Your task to perform on an android device: make emails show in primary in the gmail app Image 0: 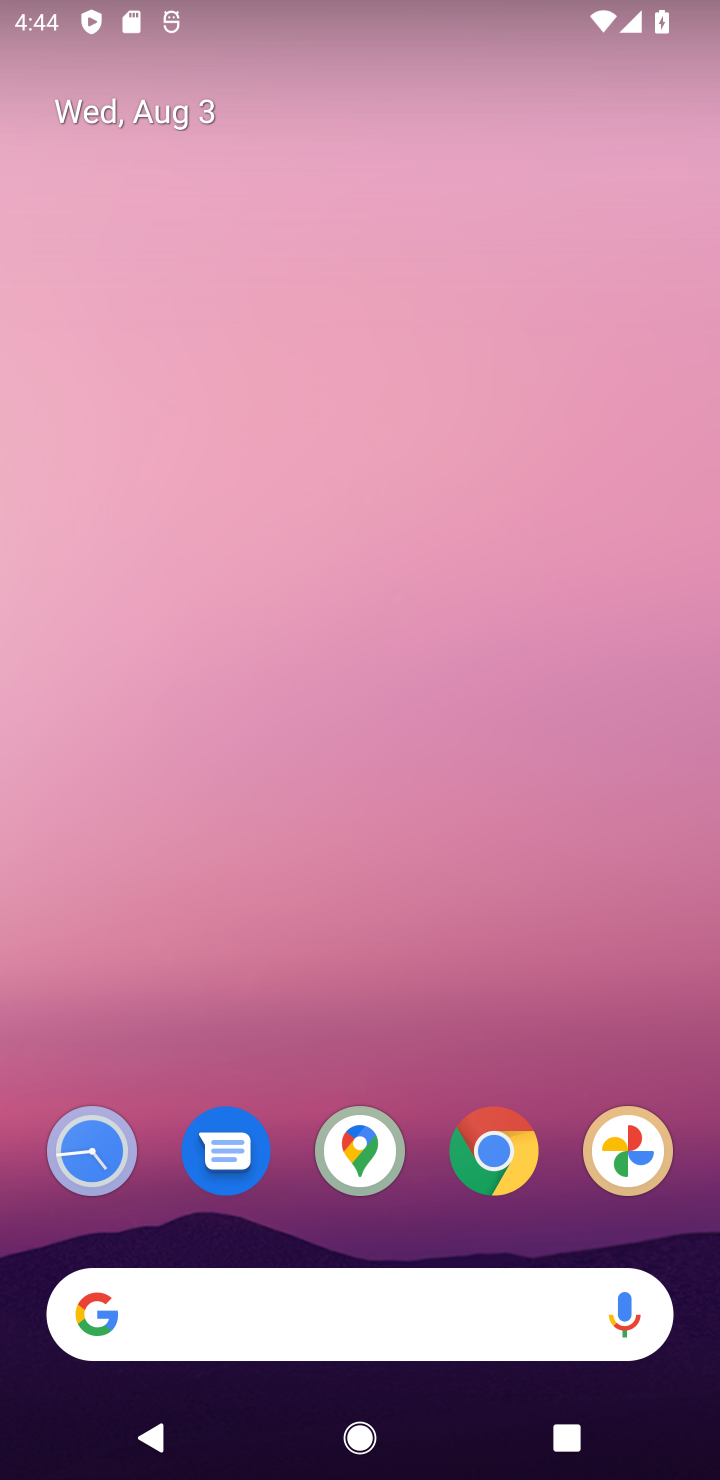
Step 0: press back button
Your task to perform on an android device: make emails show in primary in the gmail app Image 1: 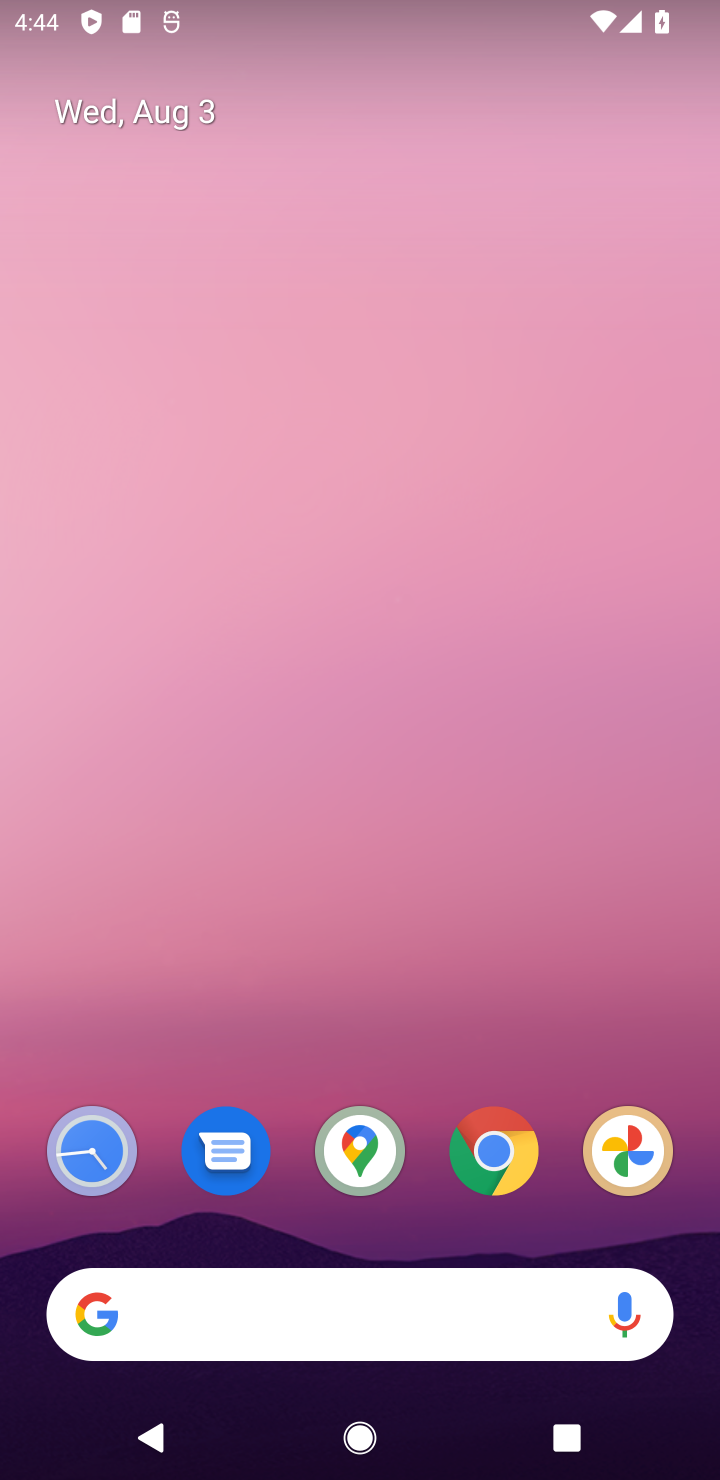
Step 1: drag from (359, 1062) to (272, 495)
Your task to perform on an android device: make emails show in primary in the gmail app Image 2: 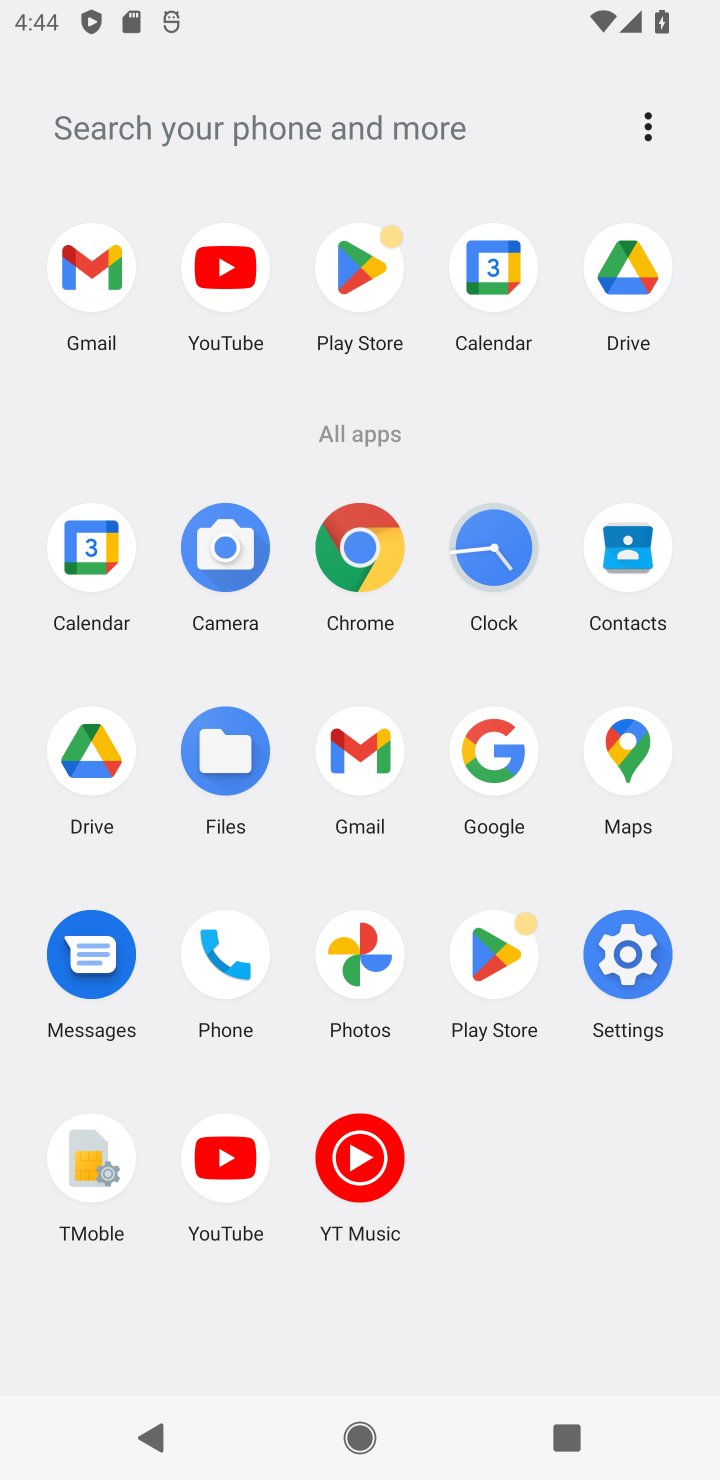
Step 2: click (330, 742)
Your task to perform on an android device: make emails show in primary in the gmail app Image 3: 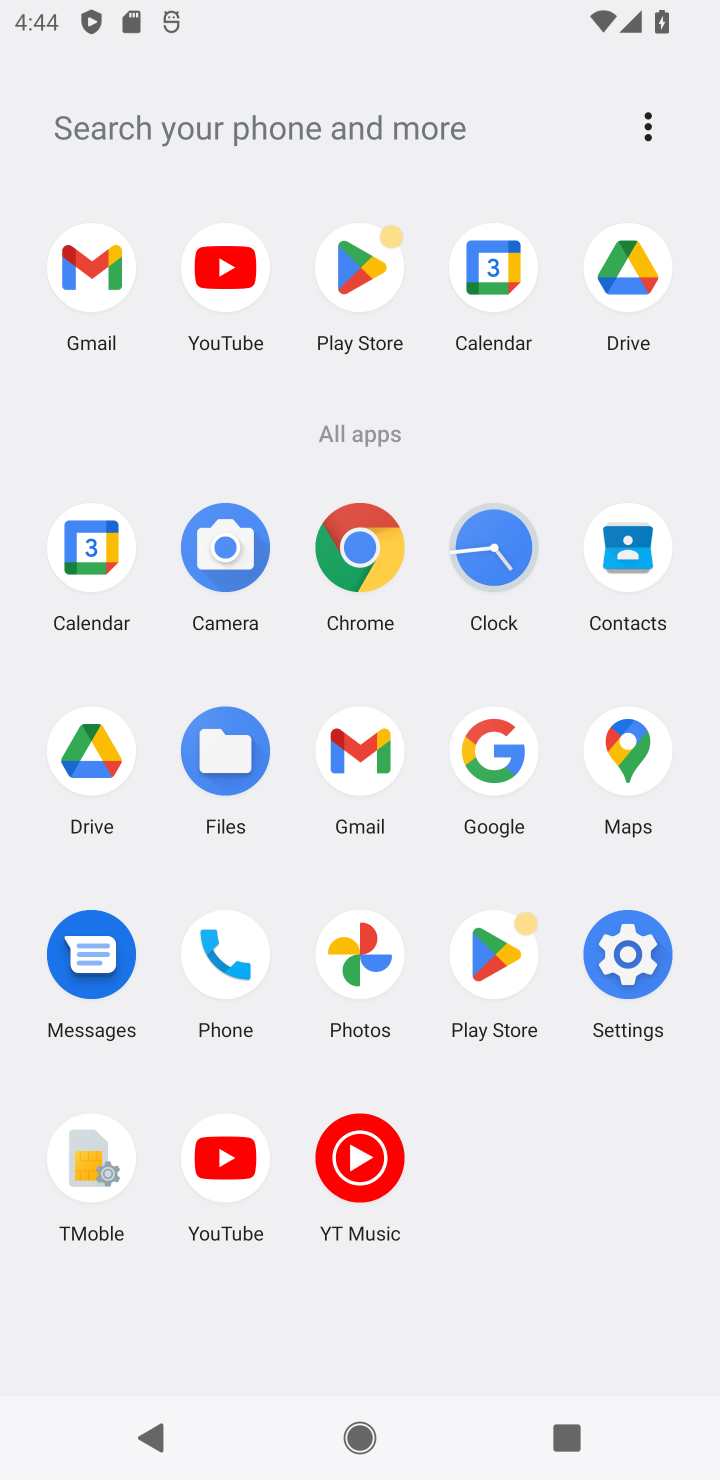
Step 3: click (334, 742)
Your task to perform on an android device: make emails show in primary in the gmail app Image 4: 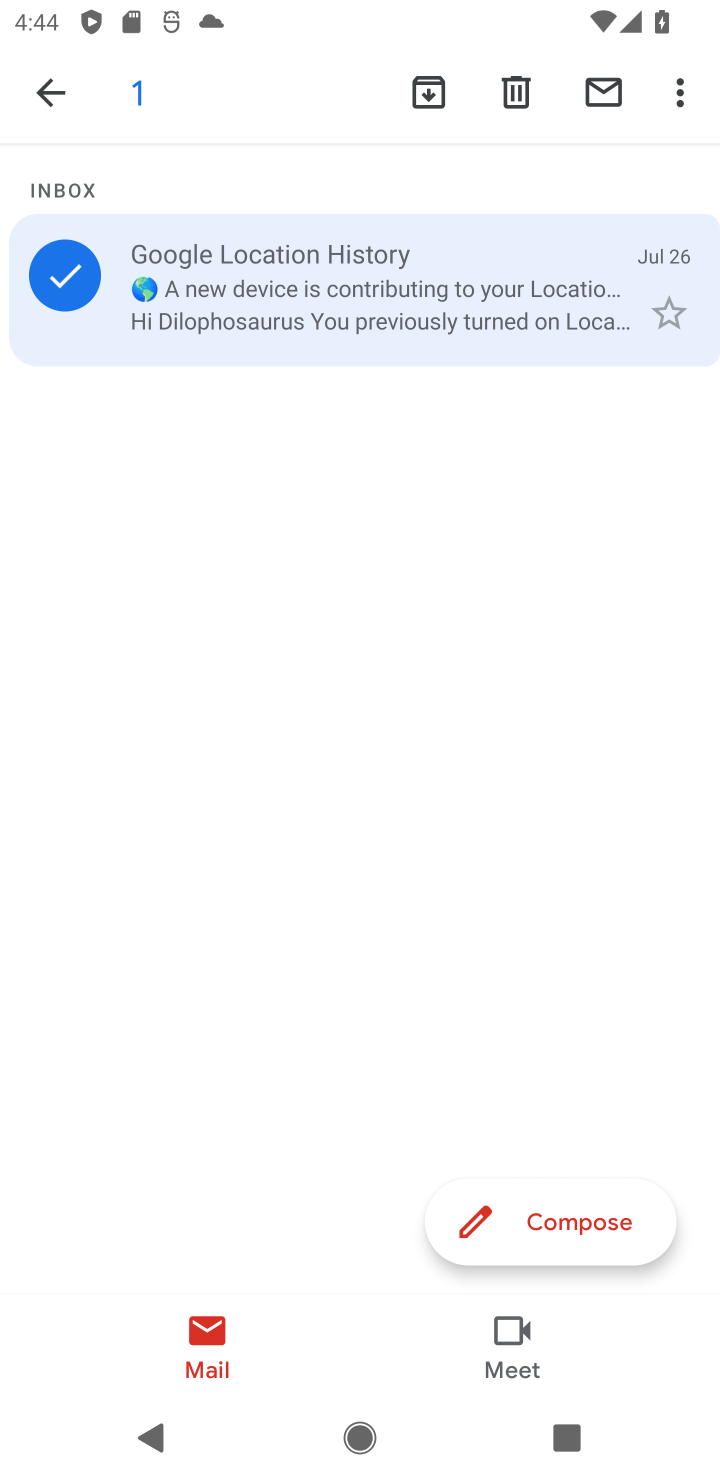
Step 4: click (40, 82)
Your task to perform on an android device: make emails show in primary in the gmail app Image 5: 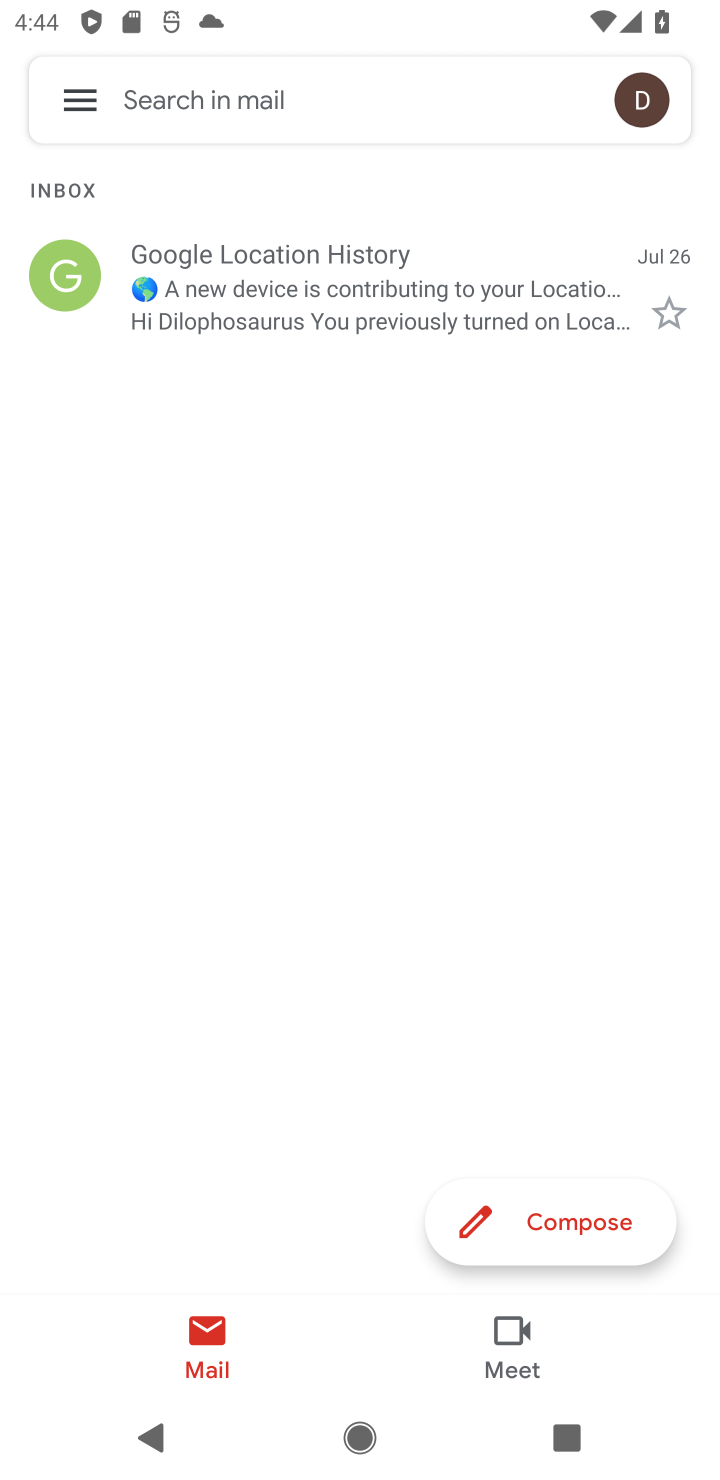
Step 5: click (63, 90)
Your task to perform on an android device: make emails show in primary in the gmail app Image 6: 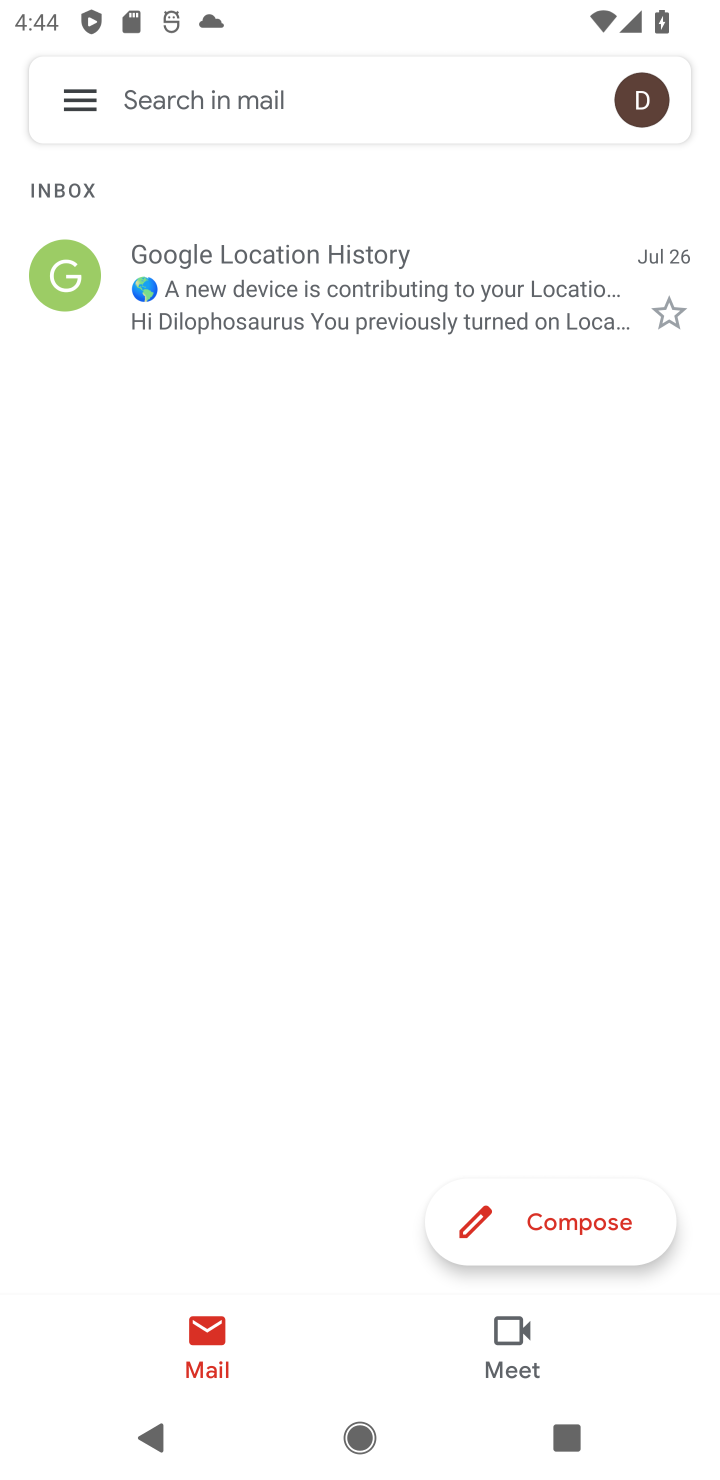
Step 6: click (70, 95)
Your task to perform on an android device: make emails show in primary in the gmail app Image 7: 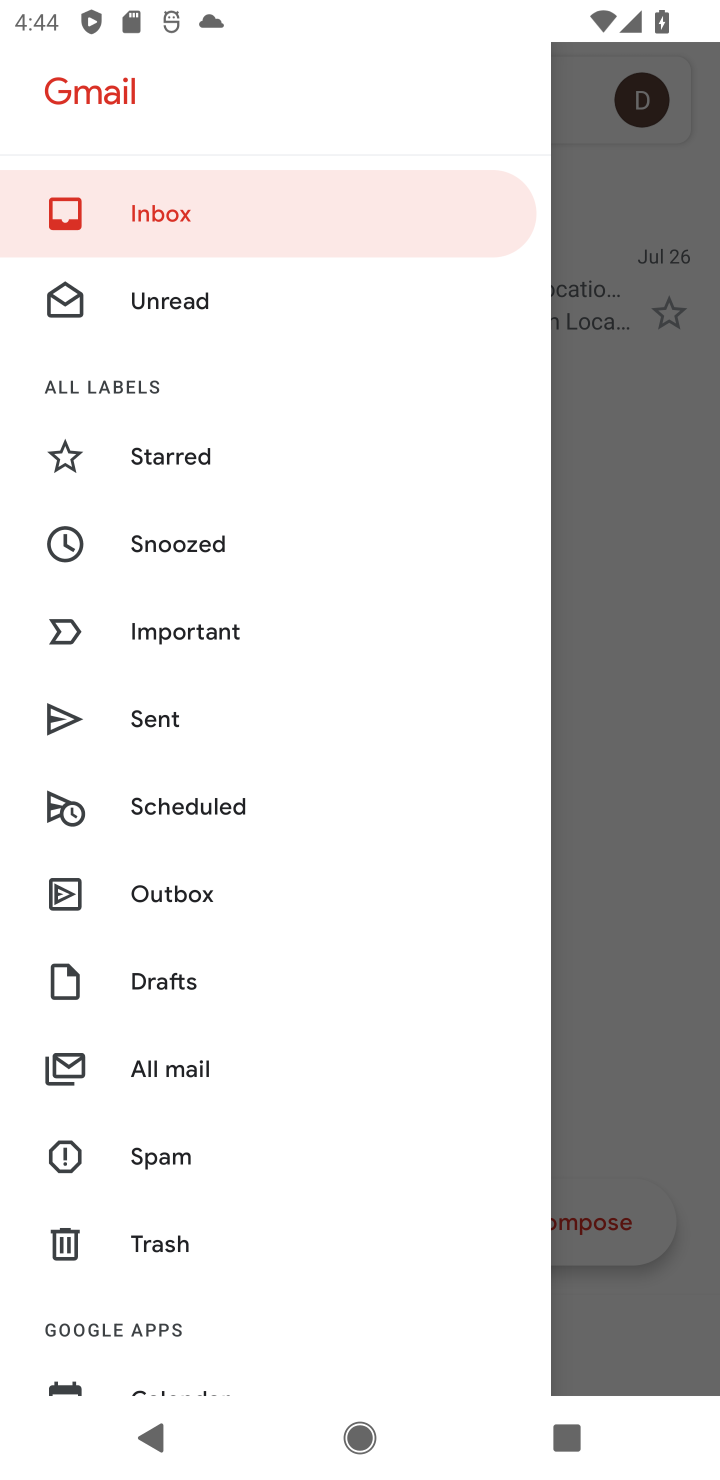
Step 7: drag from (236, 962) to (380, 584)
Your task to perform on an android device: make emails show in primary in the gmail app Image 8: 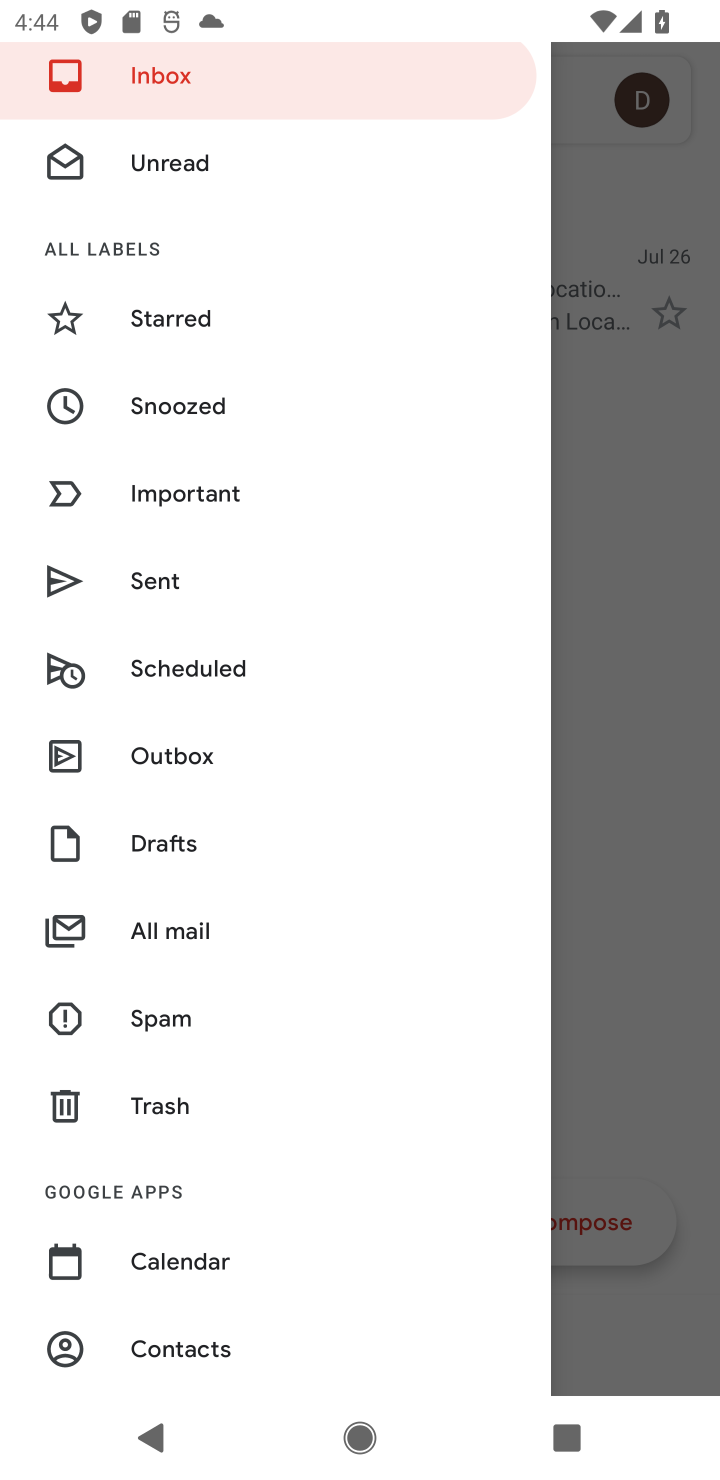
Step 8: drag from (332, 939) to (326, 601)
Your task to perform on an android device: make emails show in primary in the gmail app Image 9: 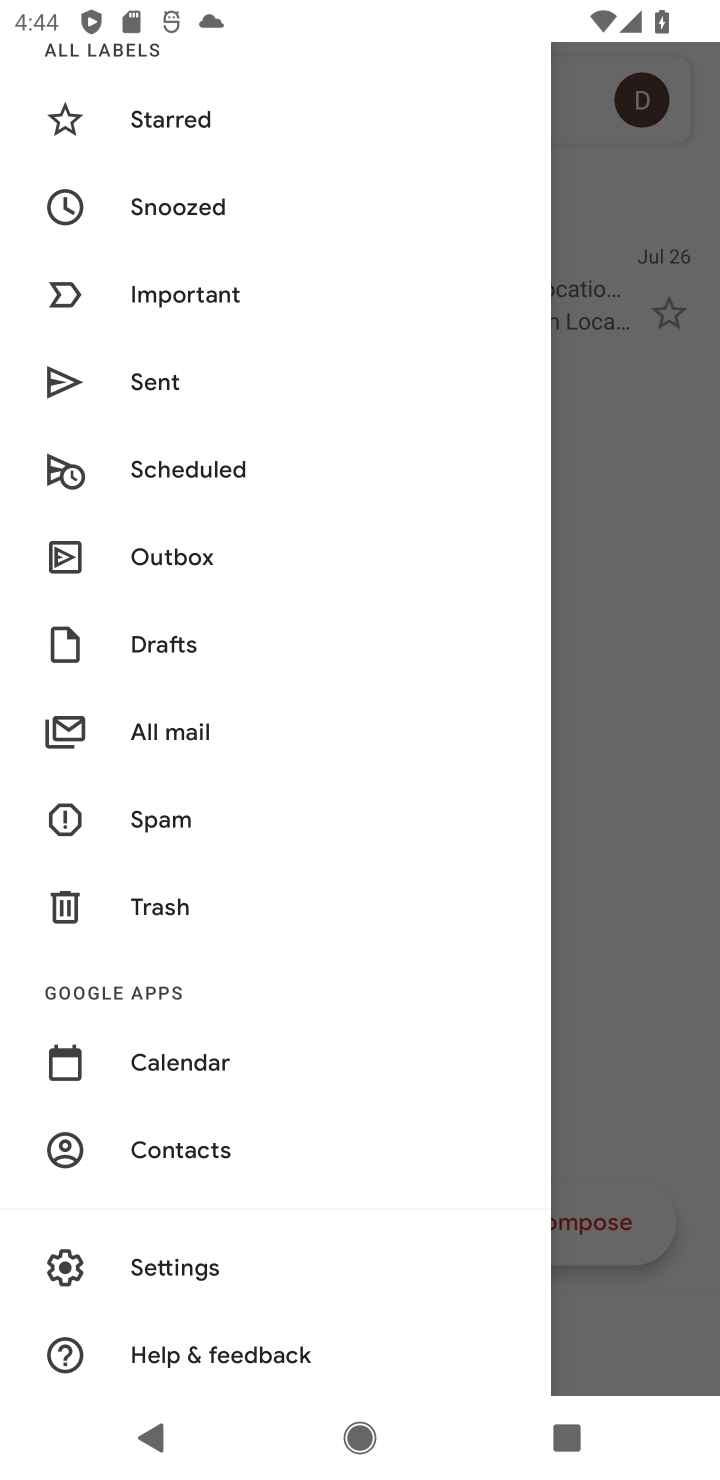
Step 9: click (174, 1248)
Your task to perform on an android device: make emails show in primary in the gmail app Image 10: 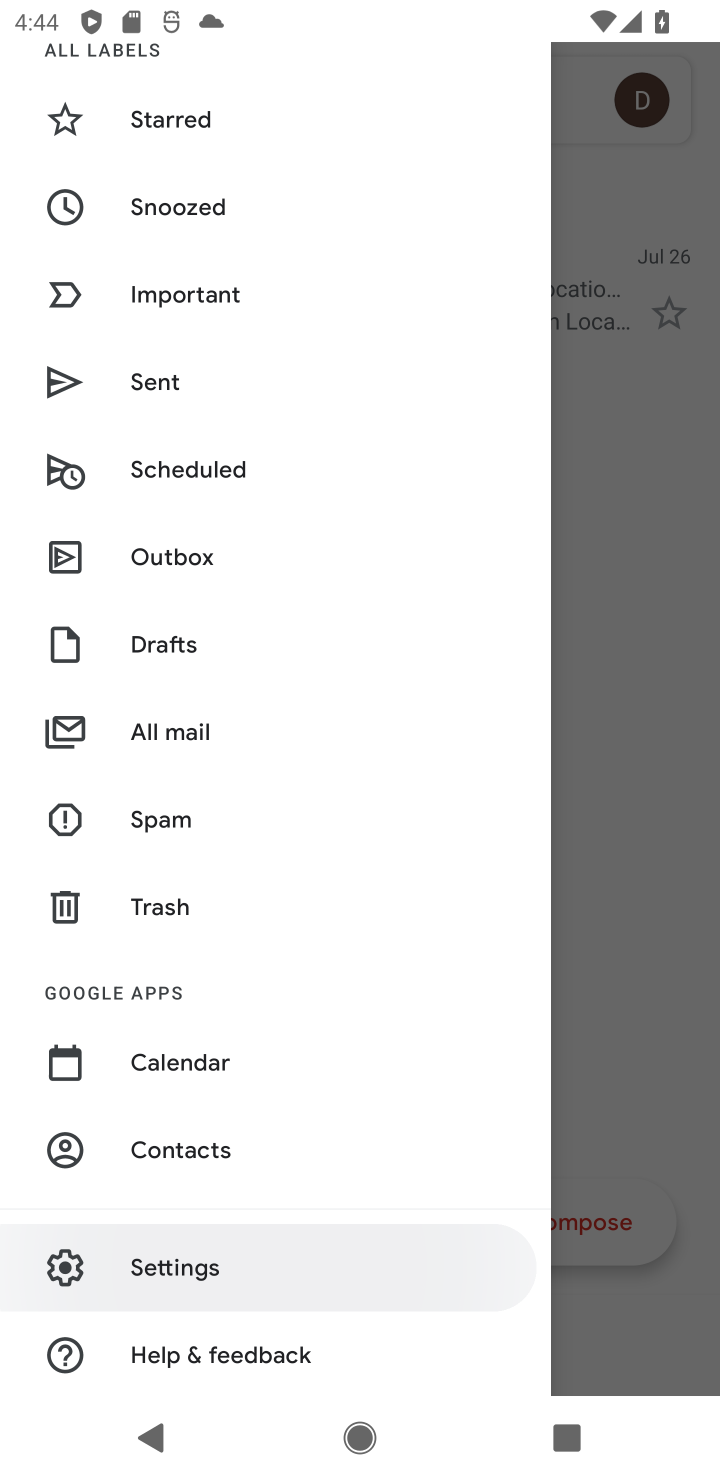
Step 10: click (183, 1278)
Your task to perform on an android device: make emails show in primary in the gmail app Image 11: 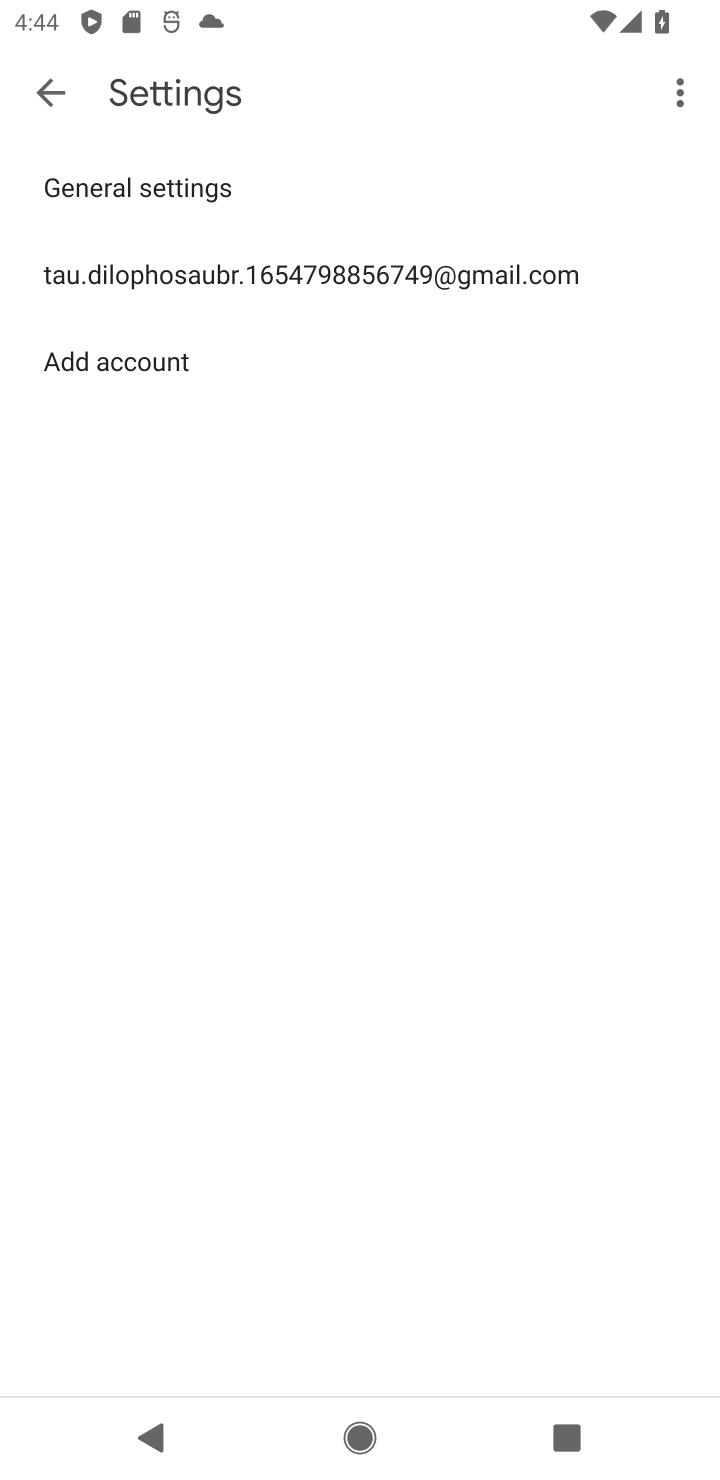
Step 11: click (155, 278)
Your task to perform on an android device: make emails show in primary in the gmail app Image 12: 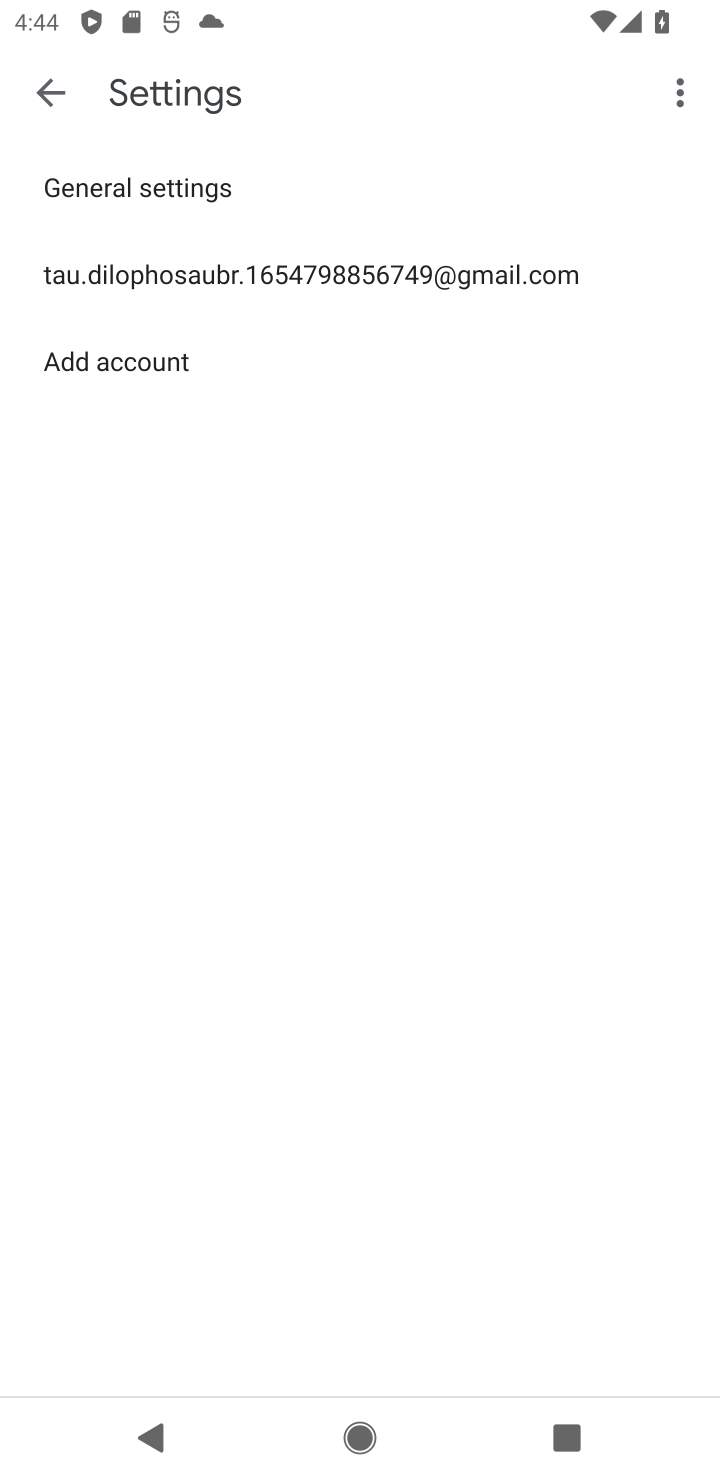
Step 12: click (162, 293)
Your task to perform on an android device: make emails show in primary in the gmail app Image 13: 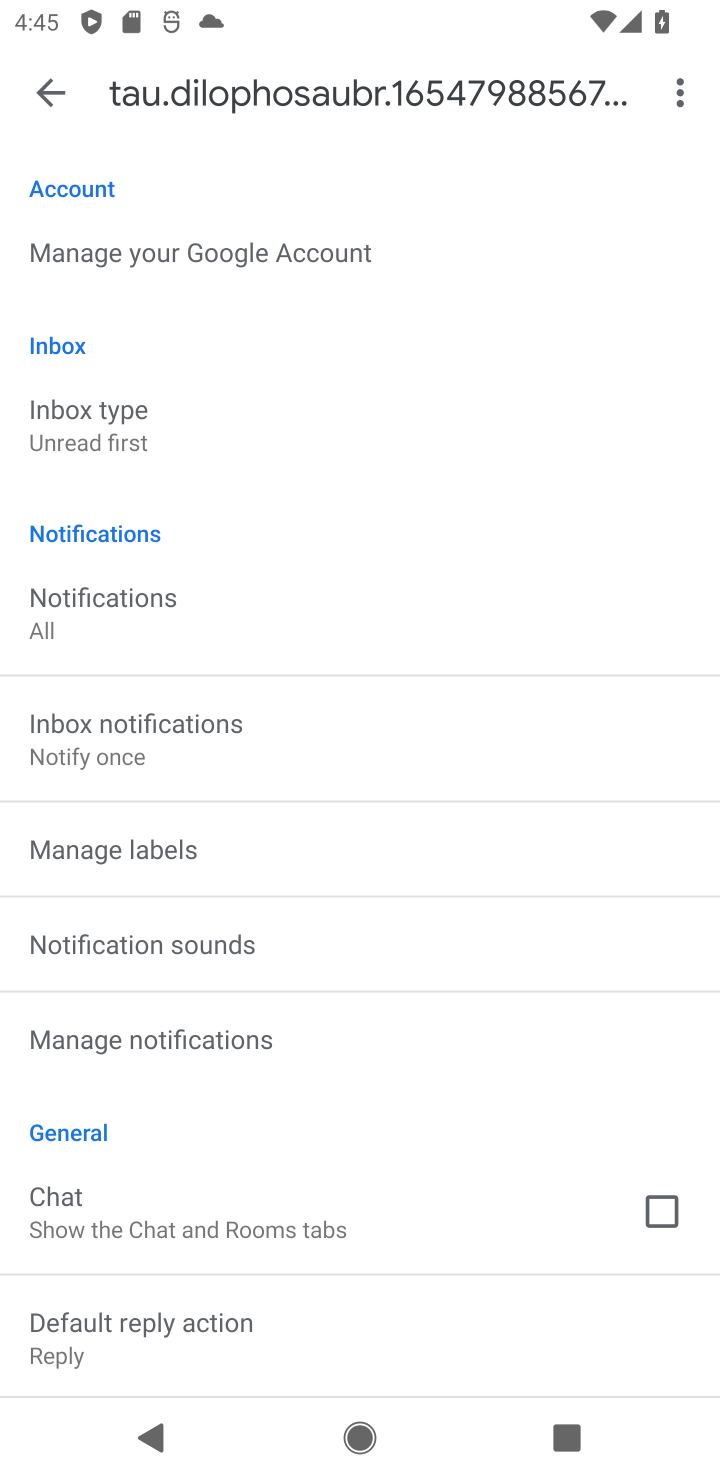
Step 13: click (79, 413)
Your task to perform on an android device: make emails show in primary in the gmail app Image 14: 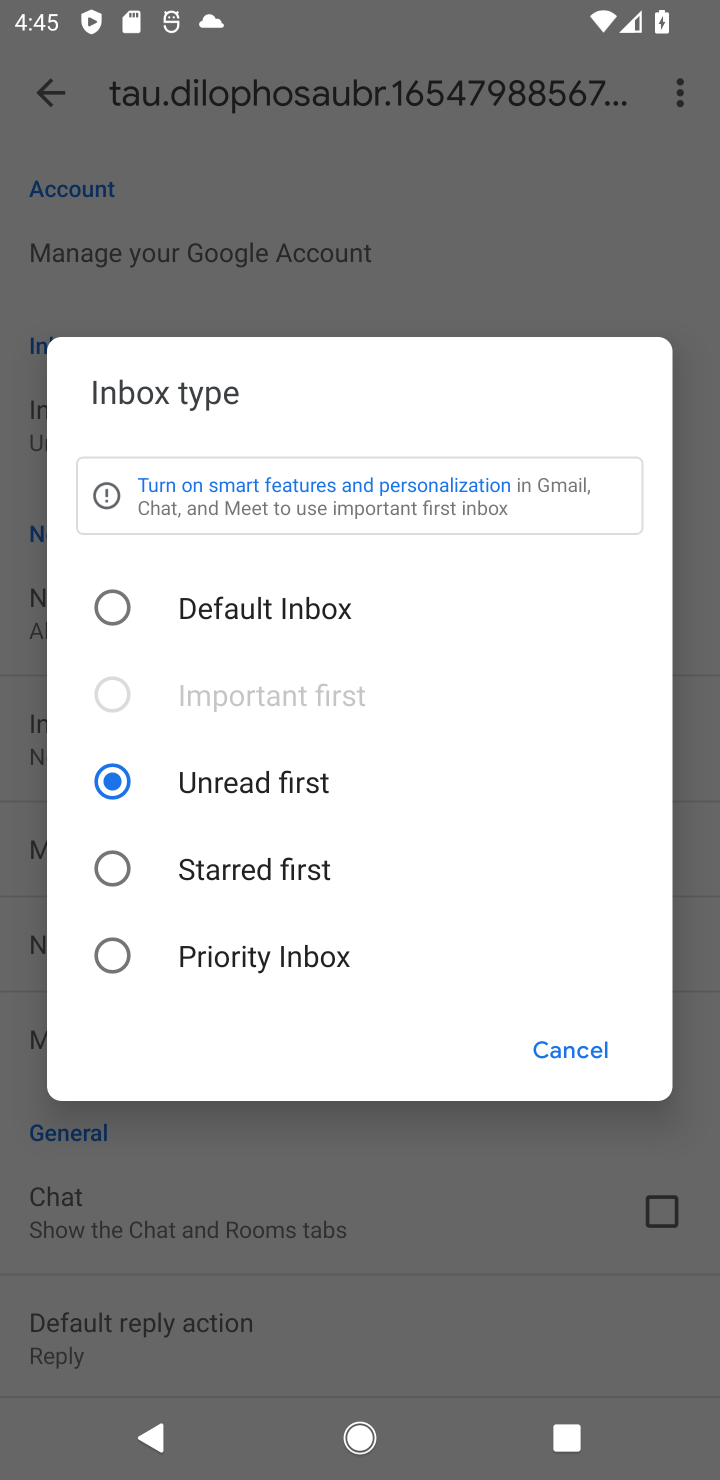
Step 14: click (107, 608)
Your task to perform on an android device: make emails show in primary in the gmail app Image 15: 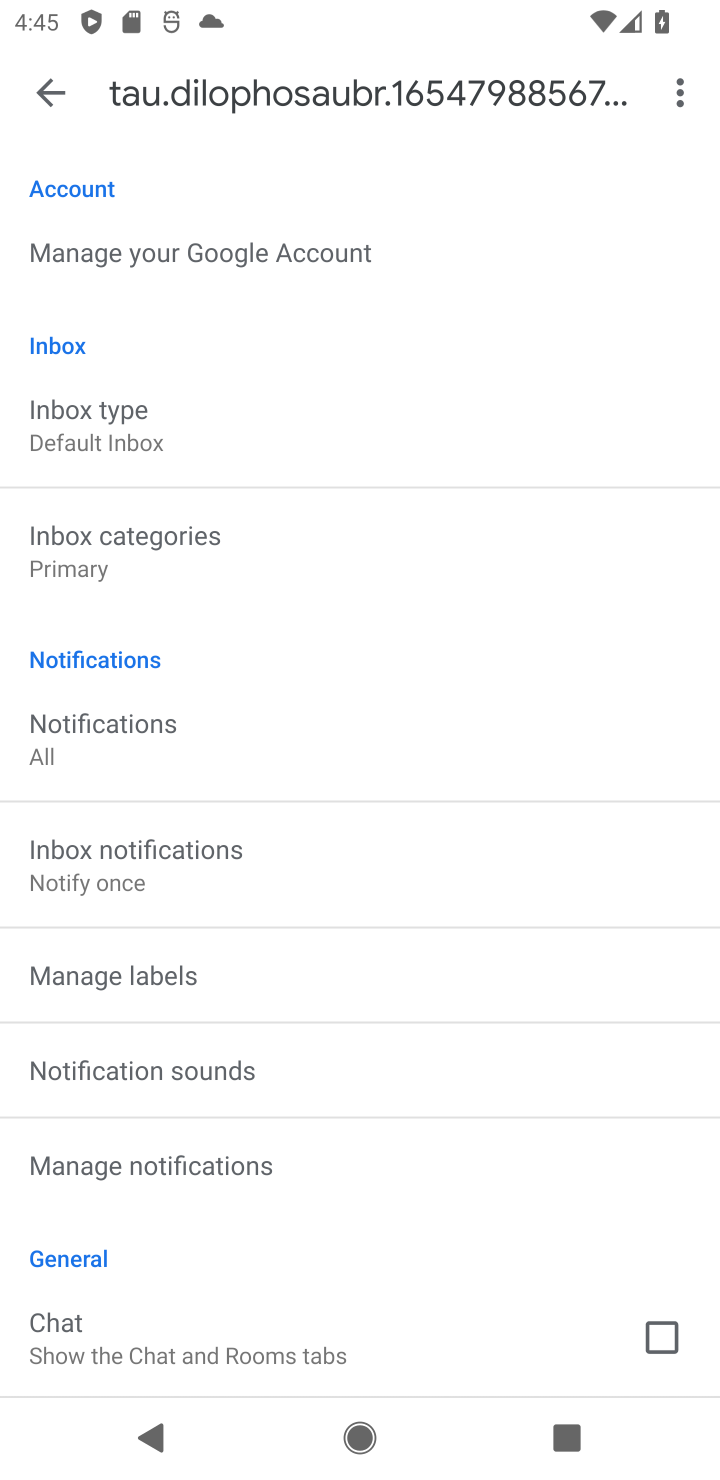
Step 15: task complete